Your task to perform on an android device: Go to sound settings Image 0: 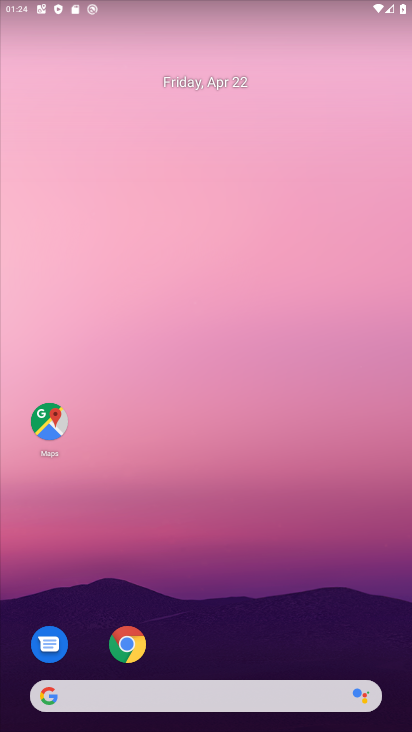
Step 0: drag from (343, 617) to (285, 344)
Your task to perform on an android device: Go to sound settings Image 1: 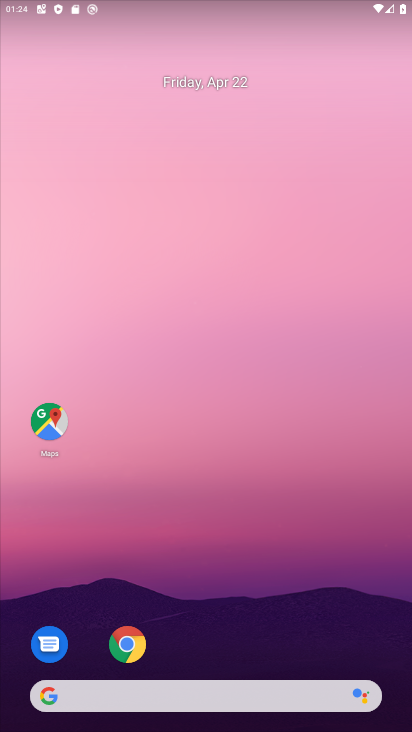
Step 1: drag from (265, 583) to (257, 176)
Your task to perform on an android device: Go to sound settings Image 2: 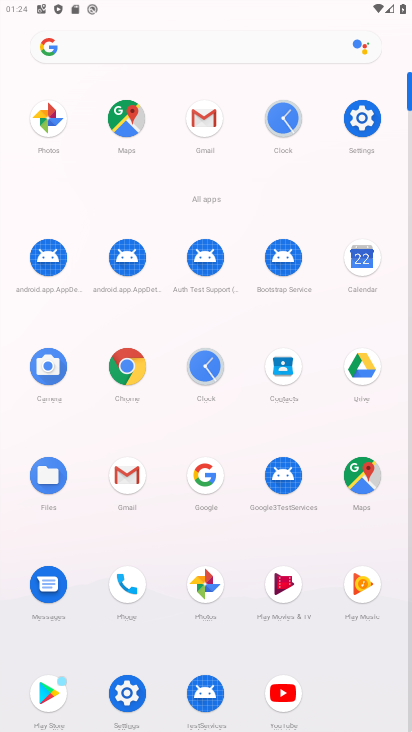
Step 2: click (366, 115)
Your task to perform on an android device: Go to sound settings Image 3: 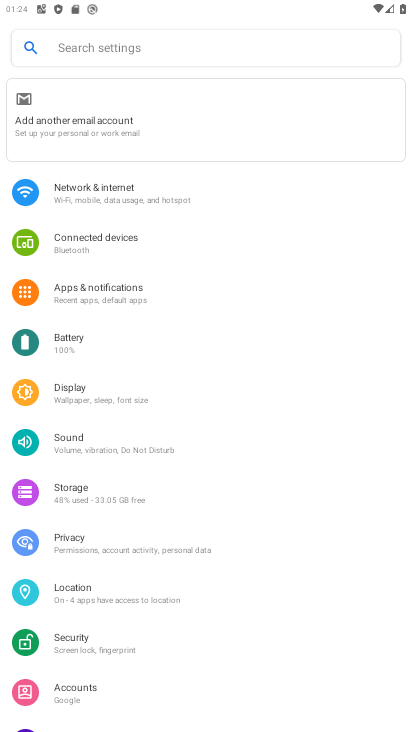
Step 3: click (214, 444)
Your task to perform on an android device: Go to sound settings Image 4: 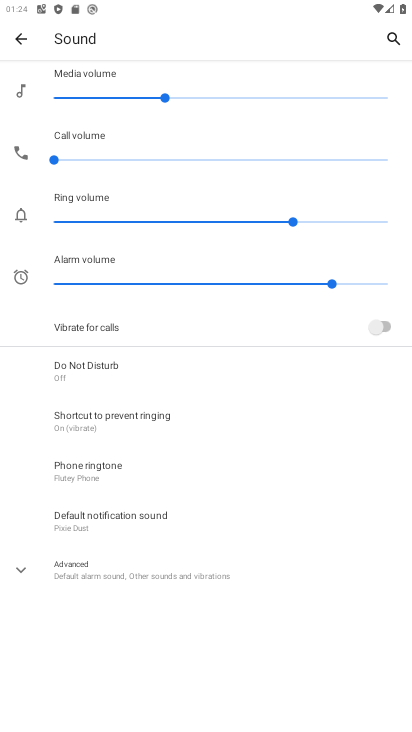
Step 4: task complete